Your task to perform on an android device: open a bookmark in the chrome app Image 0: 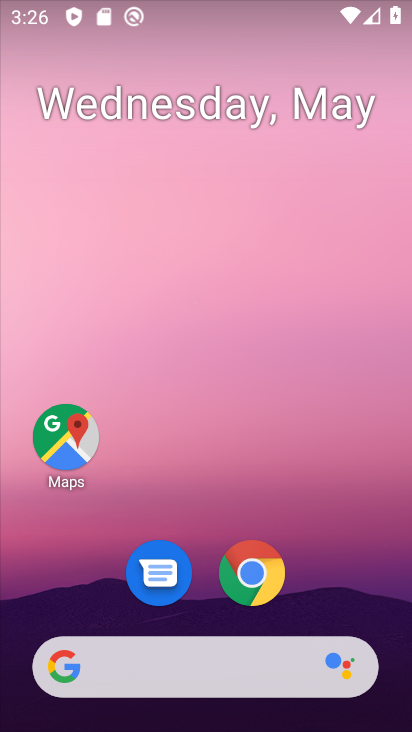
Step 0: click (234, 604)
Your task to perform on an android device: open a bookmark in the chrome app Image 1: 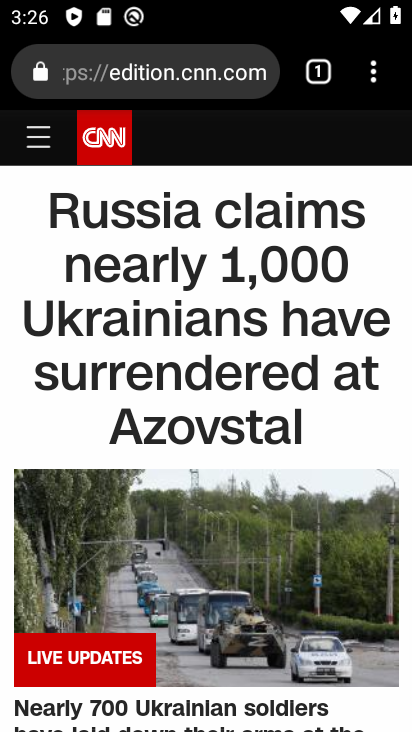
Step 1: task complete